Your task to perform on an android device: Open Google Chrome Image 0: 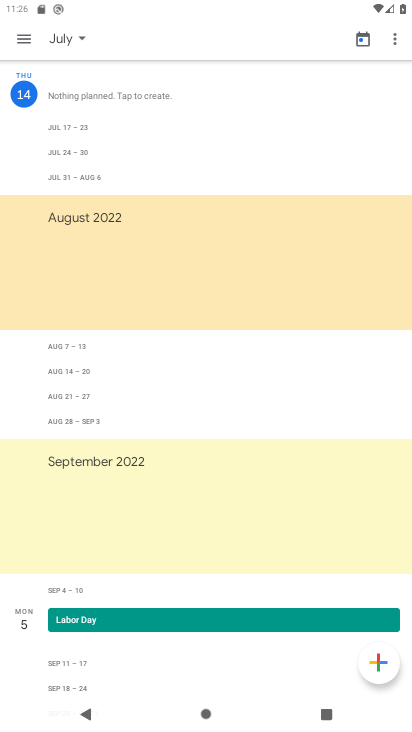
Step 0: press home button
Your task to perform on an android device: Open Google Chrome Image 1: 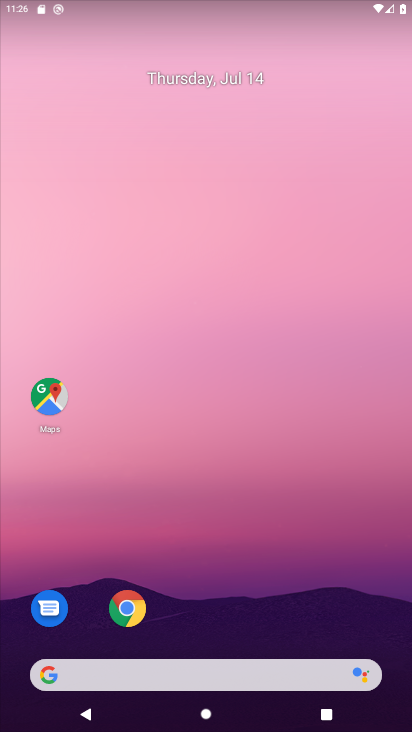
Step 1: drag from (203, 590) to (191, 211)
Your task to perform on an android device: Open Google Chrome Image 2: 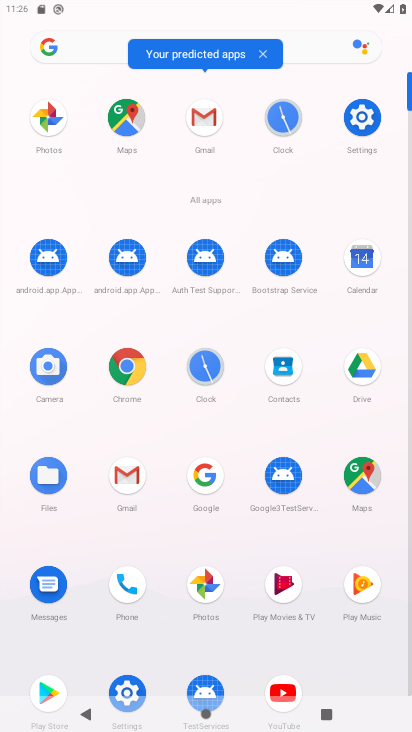
Step 2: click (117, 371)
Your task to perform on an android device: Open Google Chrome Image 3: 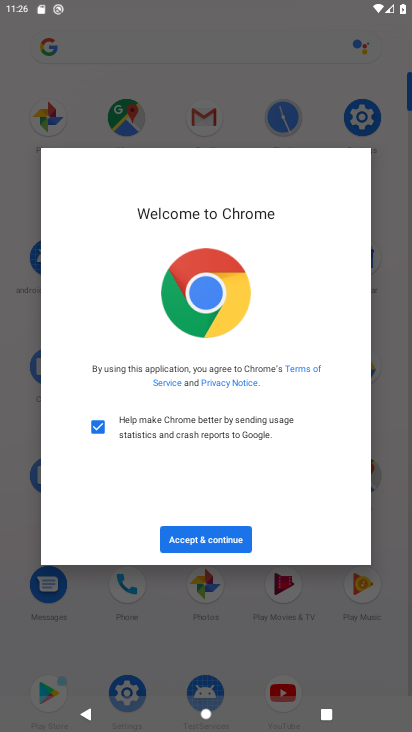
Step 3: click (217, 544)
Your task to perform on an android device: Open Google Chrome Image 4: 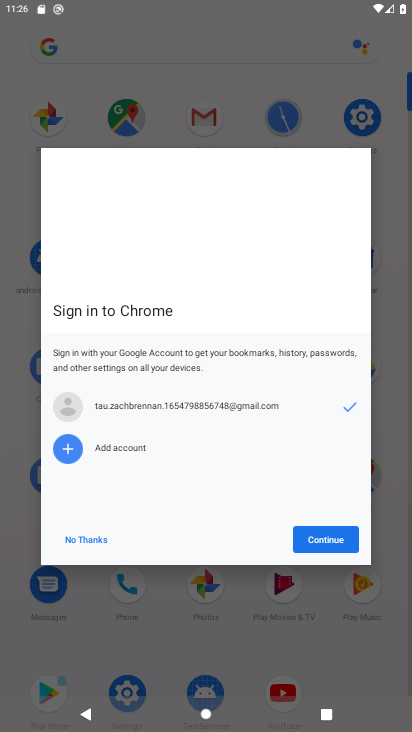
Step 4: click (321, 543)
Your task to perform on an android device: Open Google Chrome Image 5: 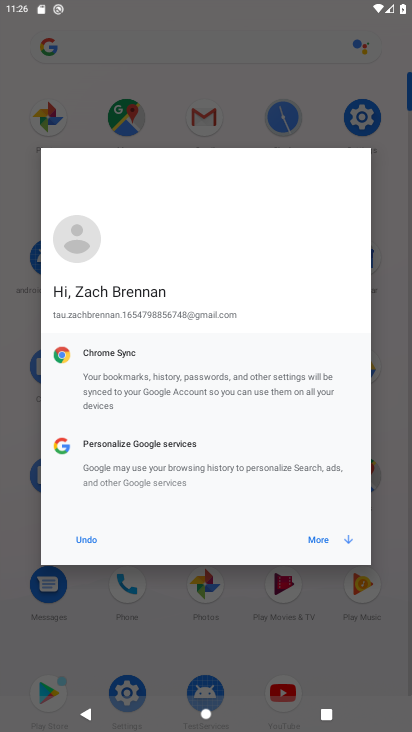
Step 5: click (320, 542)
Your task to perform on an android device: Open Google Chrome Image 6: 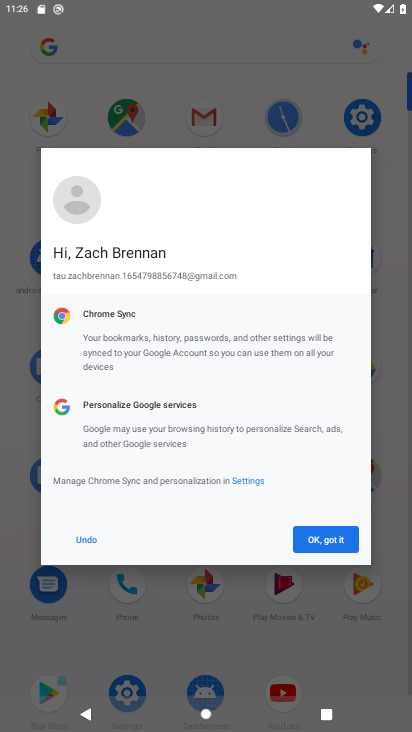
Step 6: click (324, 535)
Your task to perform on an android device: Open Google Chrome Image 7: 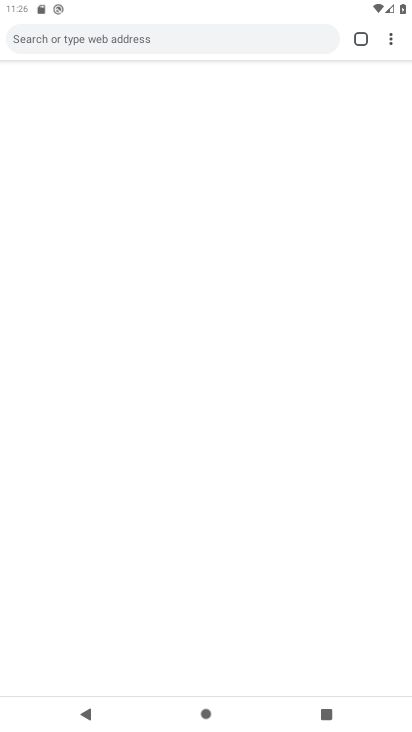
Step 7: task complete